Your task to perform on an android device: Search for Italian restaurants on Maps Image 0: 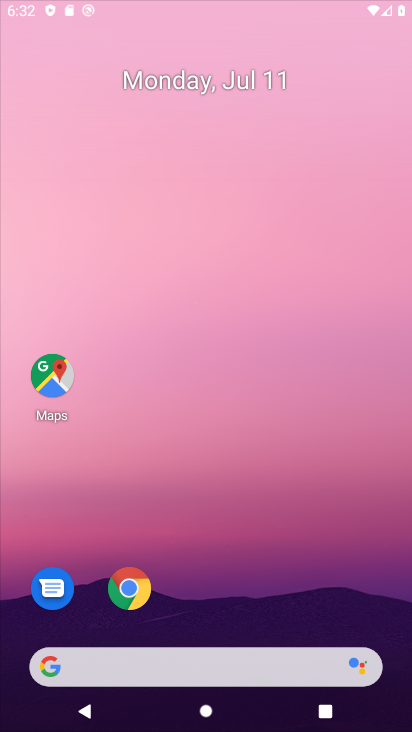
Step 0: click (206, 89)
Your task to perform on an android device: Search for Italian restaurants on Maps Image 1: 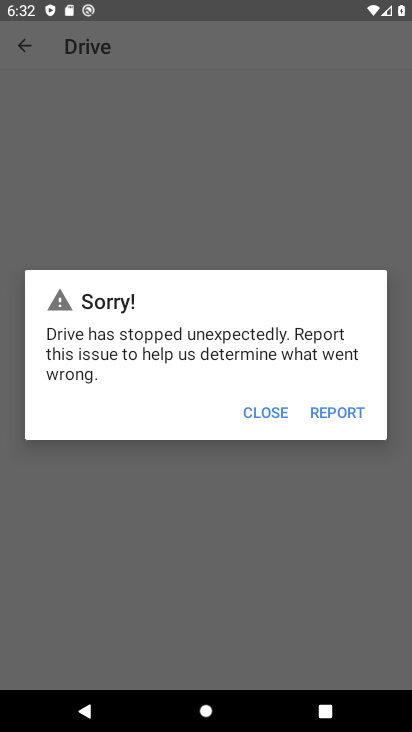
Step 1: press home button
Your task to perform on an android device: Search for Italian restaurants on Maps Image 2: 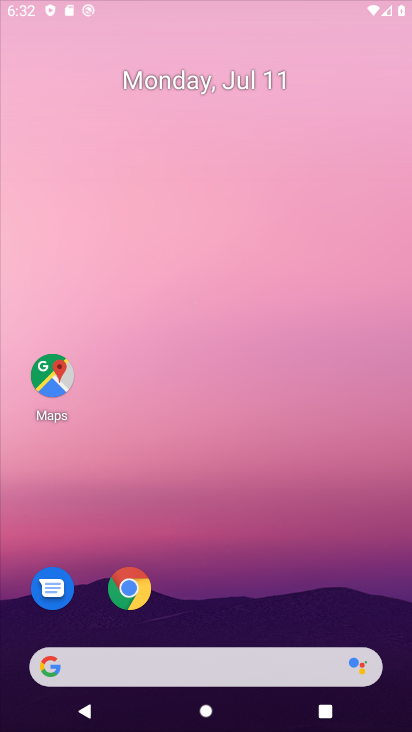
Step 2: drag from (357, 647) to (167, 17)
Your task to perform on an android device: Search for Italian restaurants on Maps Image 3: 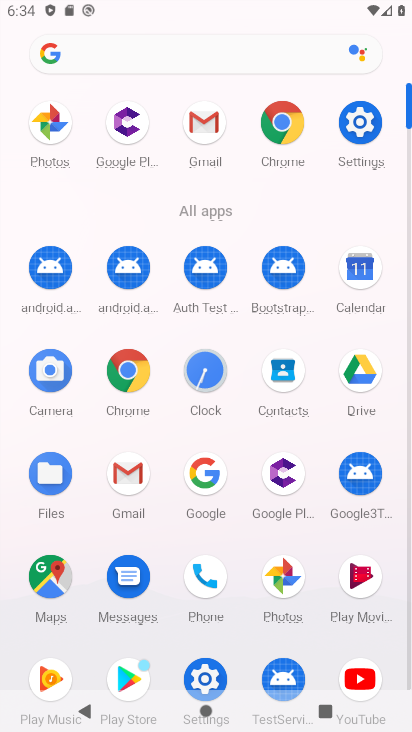
Step 3: click (27, 593)
Your task to perform on an android device: Search for Italian restaurants on Maps Image 4: 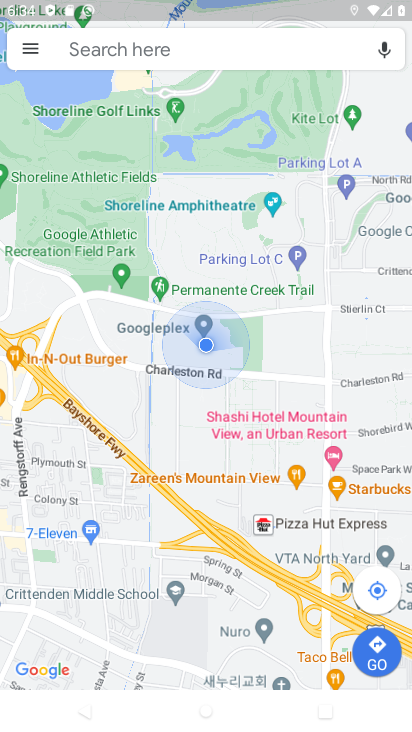
Step 4: click (173, 36)
Your task to perform on an android device: Search for Italian restaurants on Maps Image 5: 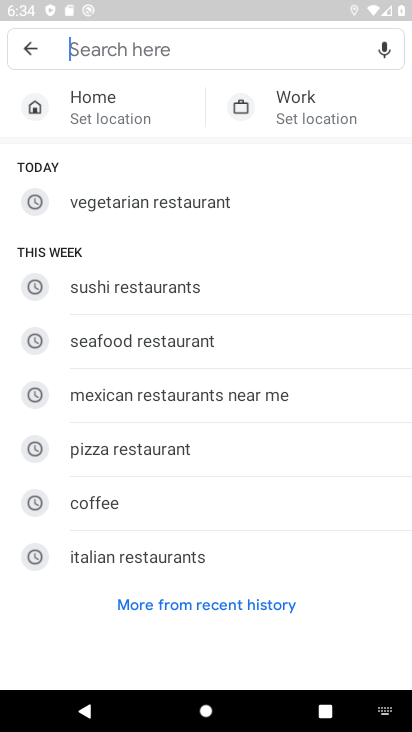
Step 5: click (156, 562)
Your task to perform on an android device: Search for Italian restaurants on Maps Image 6: 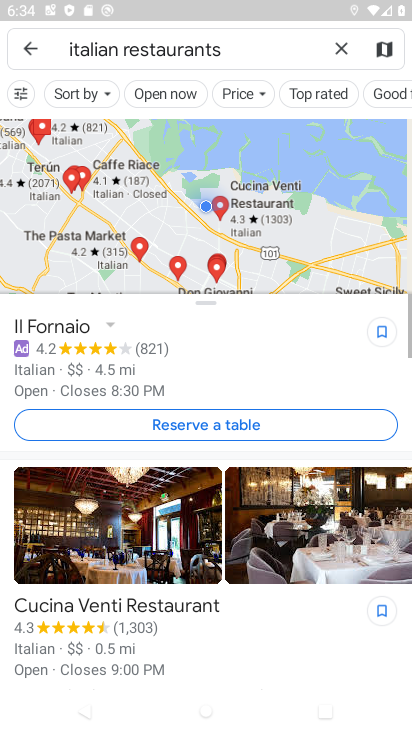
Step 6: task complete